Your task to perform on an android device: Go to wifi settings Image 0: 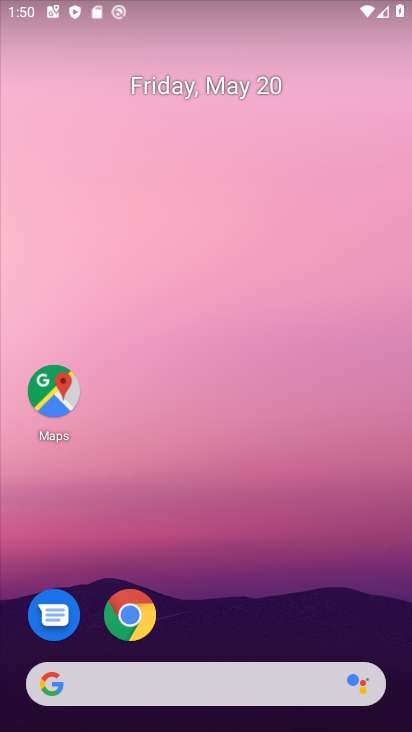
Step 0: drag from (262, 500) to (241, 192)
Your task to perform on an android device: Go to wifi settings Image 1: 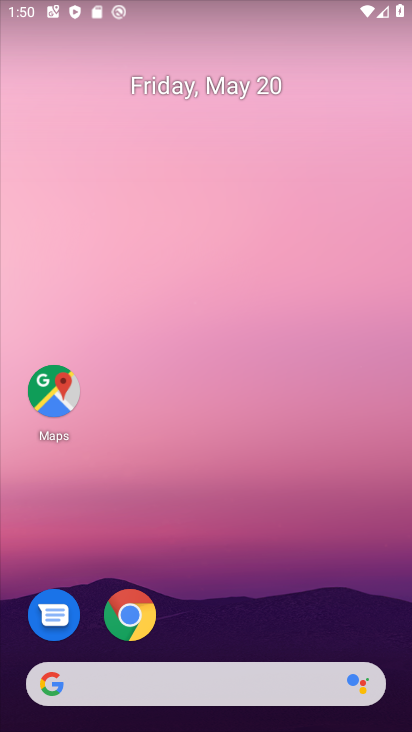
Step 1: drag from (266, 627) to (258, 226)
Your task to perform on an android device: Go to wifi settings Image 2: 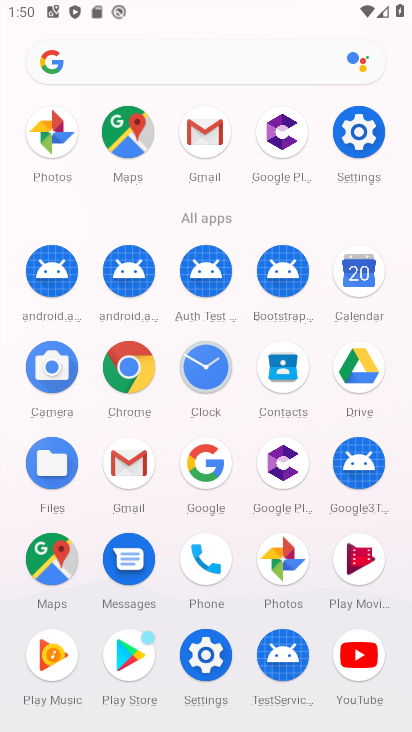
Step 2: click (345, 121)
Your task to perform on an android device: Go to wifi settings Image 3: 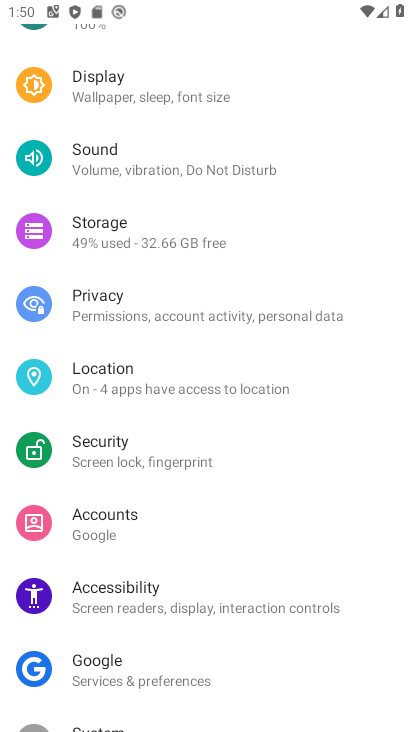
Step 3: drag from (172, 117) to (214, 563)
Your task to perform on an android device: Go to wifi settings Image 4: 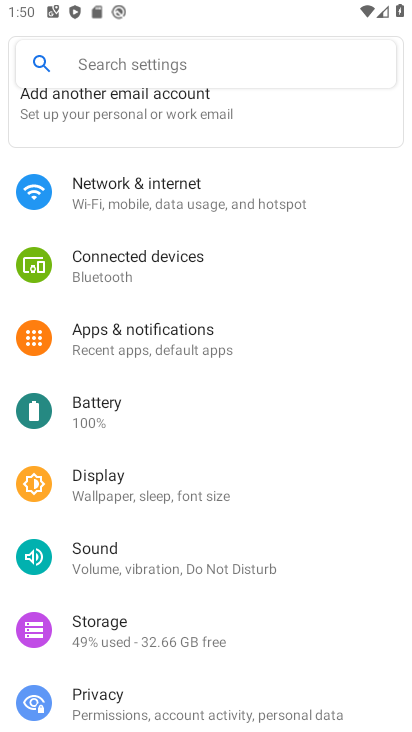
Step 4: click (194, 185)
Your task to perform on an android device: Go to wifi settings Image 5: 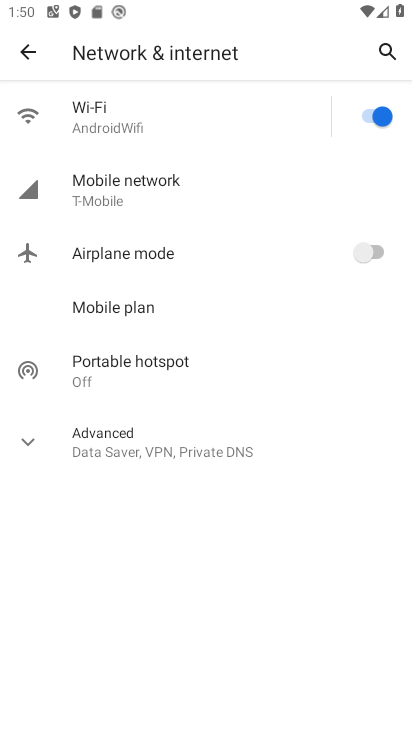
Step 5: task complete